Your task to perform on an android device: Is it going to rain tomorrow? Image 0: 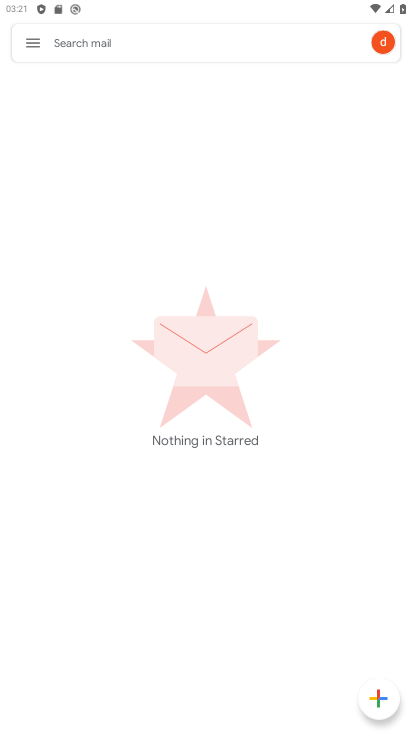
Step 0: click (30, 36)
Your task to perform on an android device: Is it going to rain tomorrow? Image 1: 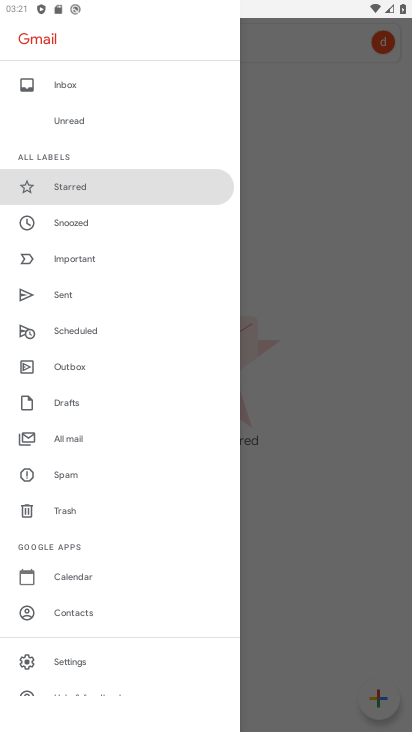
Step 1: press home button
Your task to perform on an android device: Is it going to rain tomorrow? Image 2: 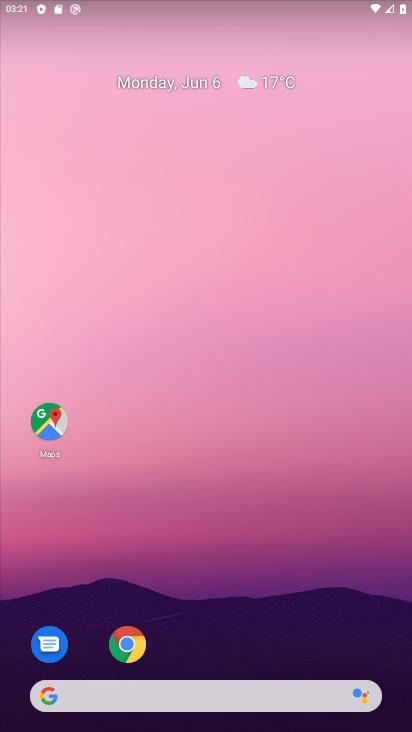
Step 2: click (267, 80)
Your task to perform on an android device: Is it going to rain tomorrow? Image 3: 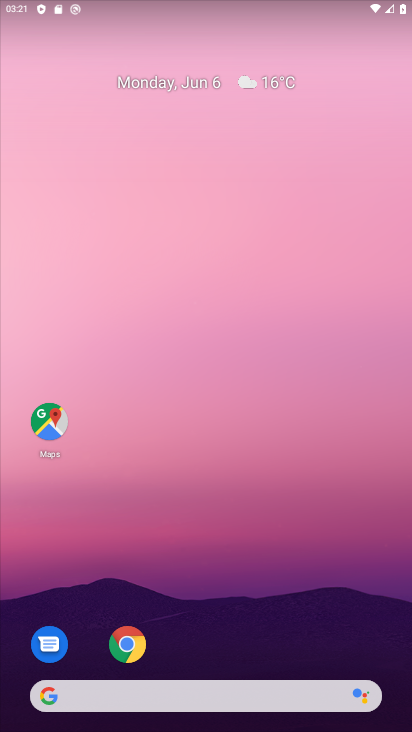
Step 3: click (267, 80)
Your task to perform on an android device: Is it going to rain tomorrow? Image 4: 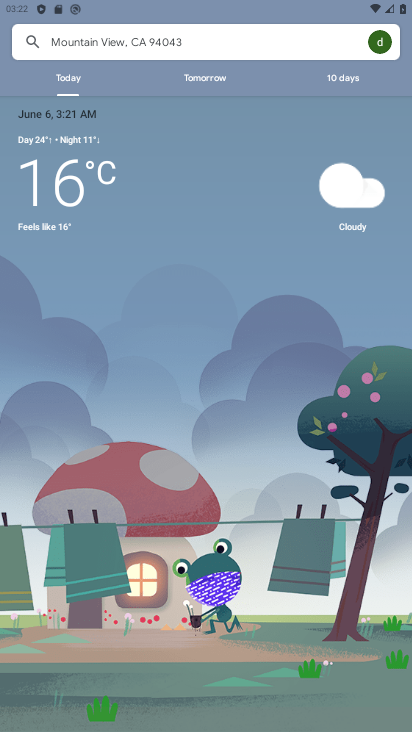
Step 4: click (206, 75)
Your task to perform on an android device: Is it going to rain tomorrow? Image 5: 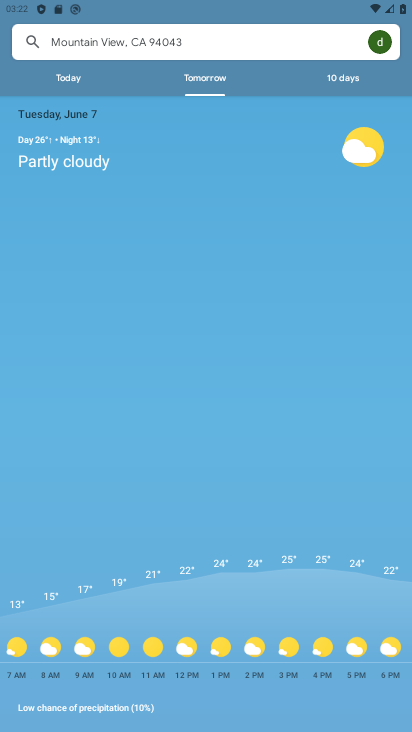
Step 5: task complete